Your task to perform on an android device: Open Yahoo.com Image 0: 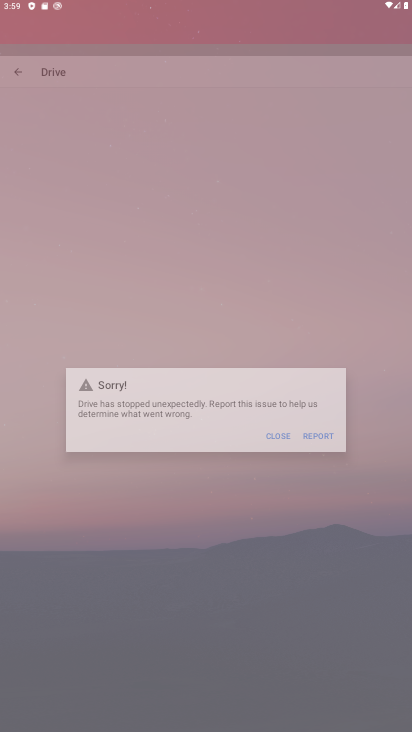
Step 0: click (212, 31)
Your task to perform on an android device: Open Yahoo.com Image 1: 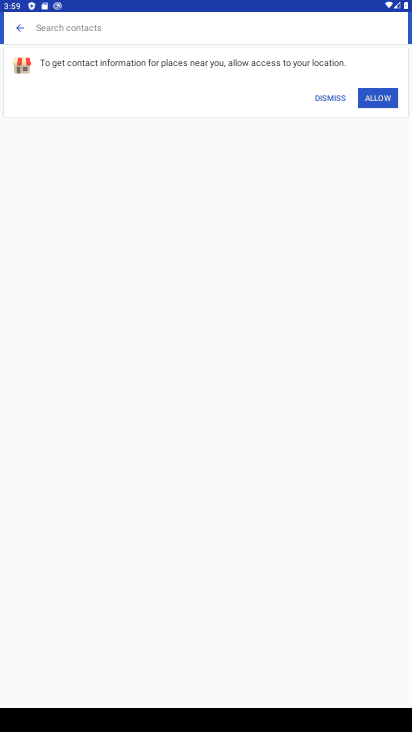
Step 1: press home button
Your task to perform on an android device: Open Yahoo.com Image 2: 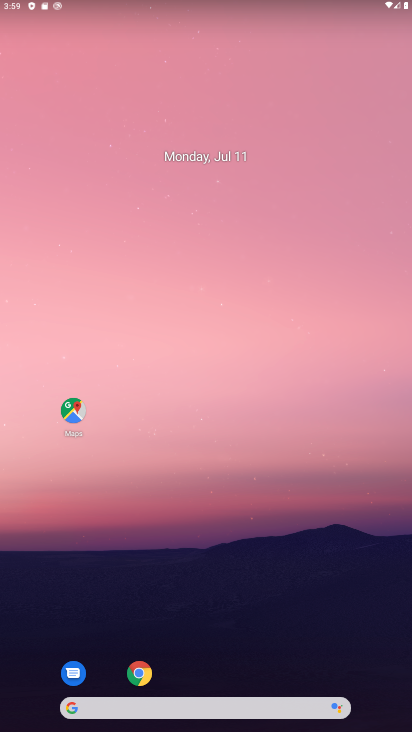
Step 2: drag from (281, 645) to (266, 98)
Your task to perform on an android device: Open Yahoo.com Image 3: 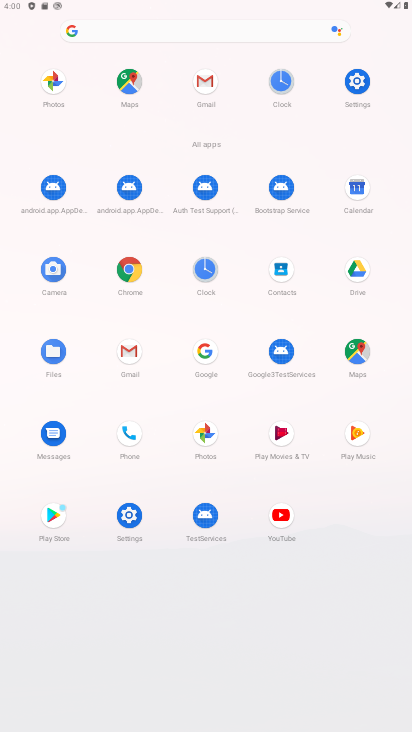
Step 3: click (129, 269)
Your task to perform on an android device: Open Yahoo.com Image 4: 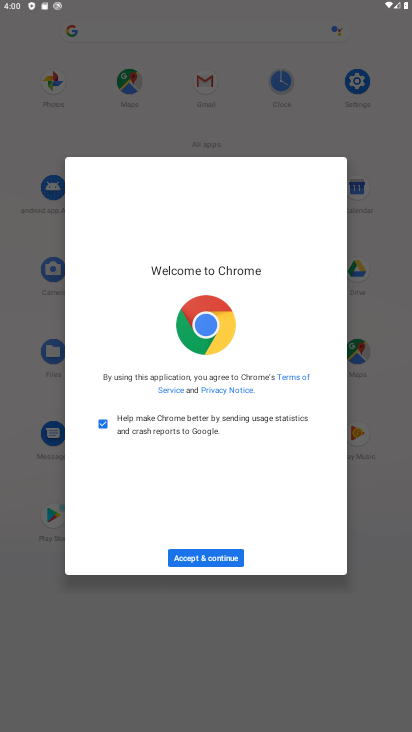
Step 4: click (223, 555)
Your task to perform on an android device: Open Yahoo.com Image 5: 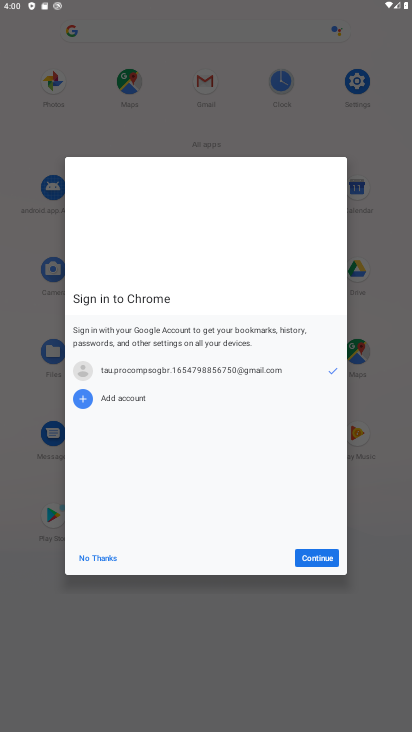
Step 5: click (315, 554)
Your task to perform on an android device: Open Yahoo.com Image 6: 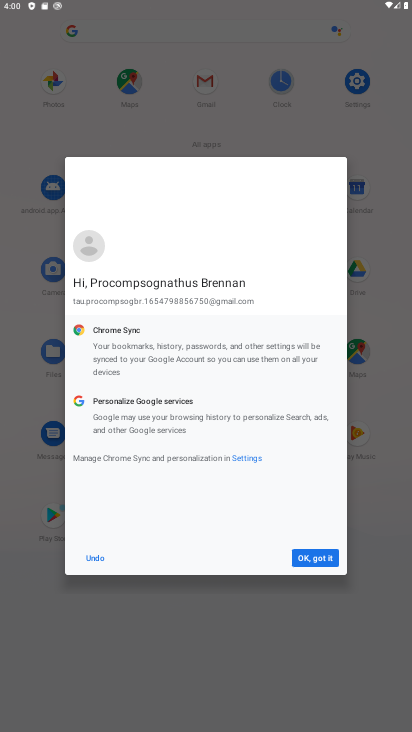
Step 6: click (324, 554)
Your task to perform on an android device: Open Yahoo.com Image 7: 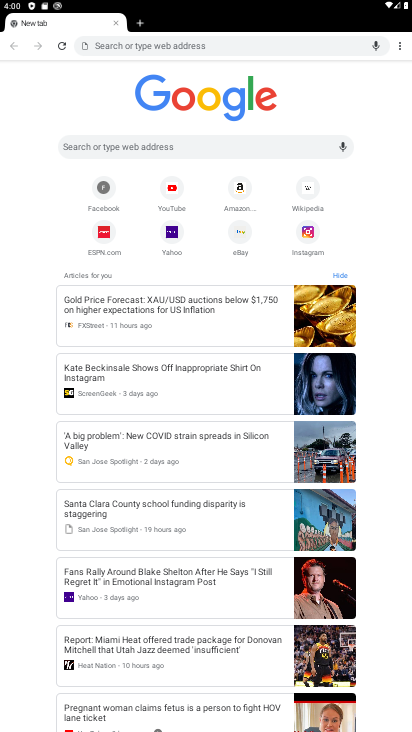
Step 7: click (175, 236)
Your task to perform on an android device: Open Yahoo.com Image 8: 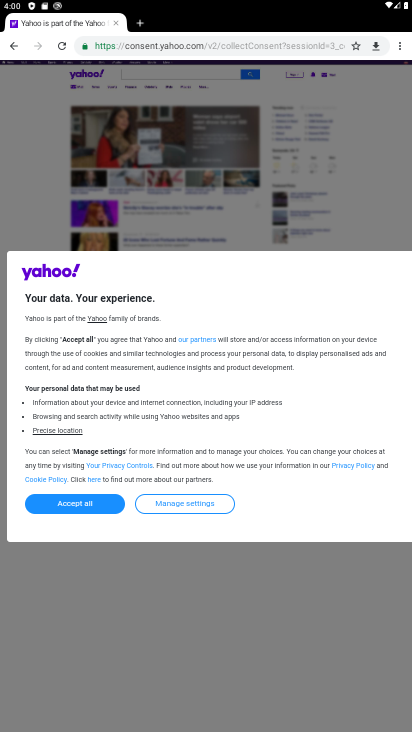
Step 8: task complete